Your task to perform on an android device: turn off location Image 0: 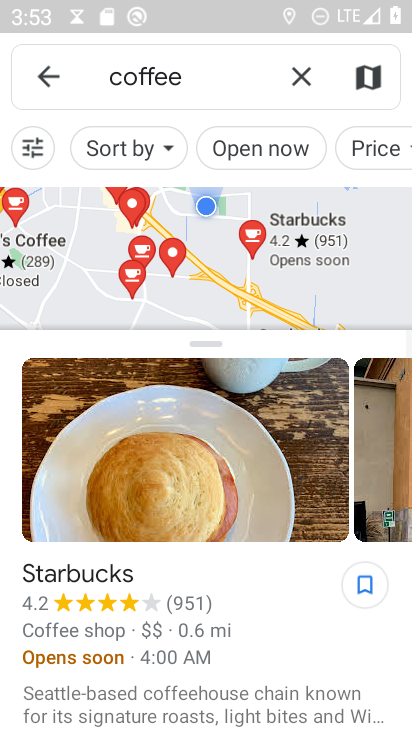
Step 0: press home button
Your task to perform on an android device: turn off location Image 1: 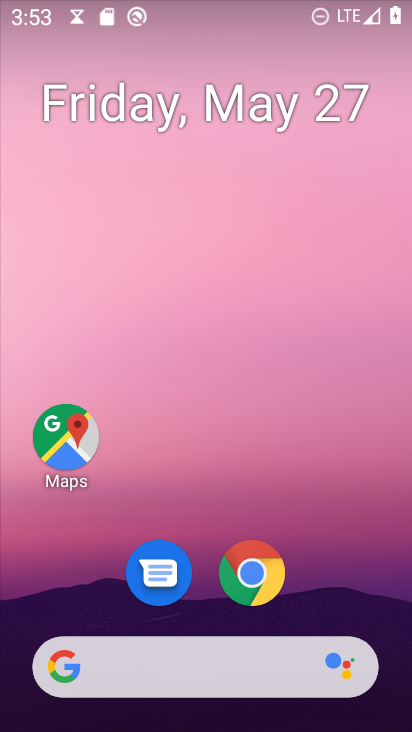
Step 1: drag from (321, 603) to (302, 26)
Your task to perform on an android device: turn off location Image 2: 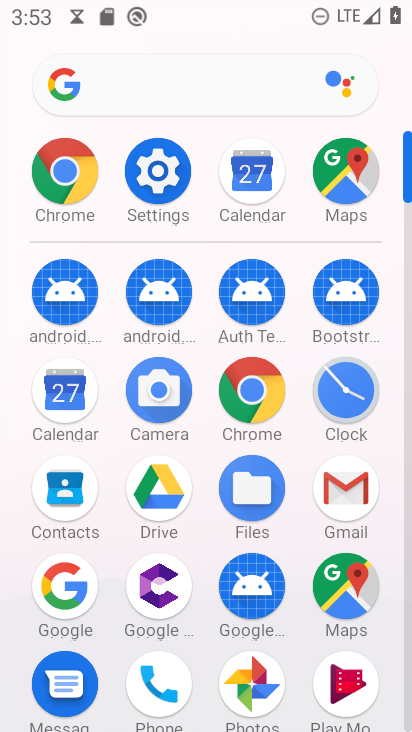
Step 2: click (158, 173)
Your task to perform on an android device: turn off location Image 3: 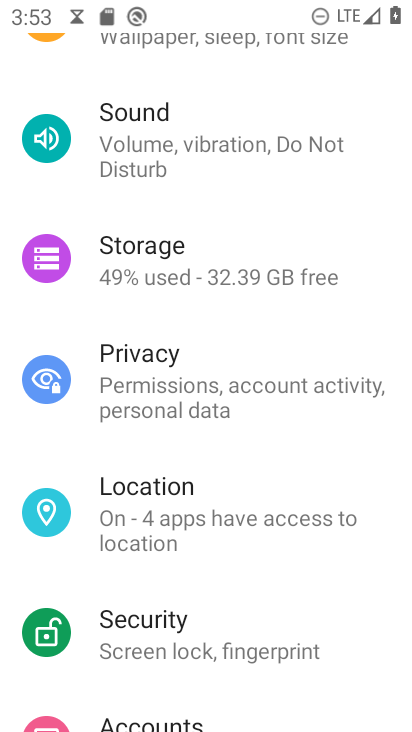
Step 3: click (168, 533)
Your task to perform on an android device: turn off location Image 4: 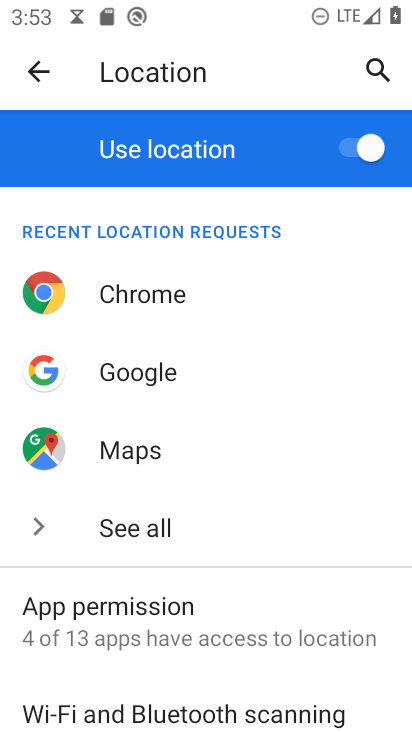
Step 4: drag from (216, 456) to (257, 325)
Your task to perform on an android device: turn off location Image 5: 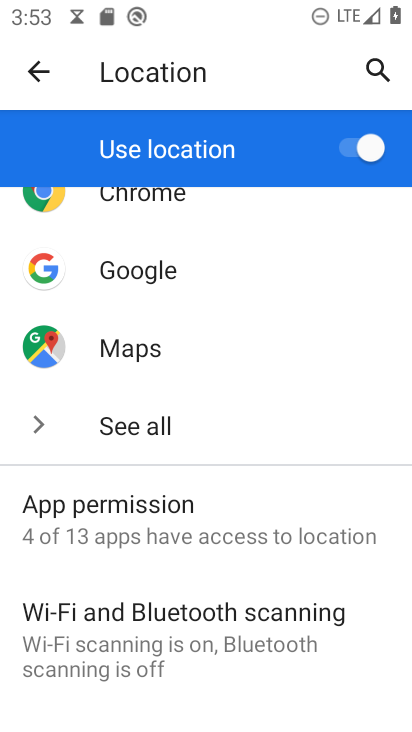
Step 5: click (346, 152)
Your task to perform on an android device: turn off location Image 6: 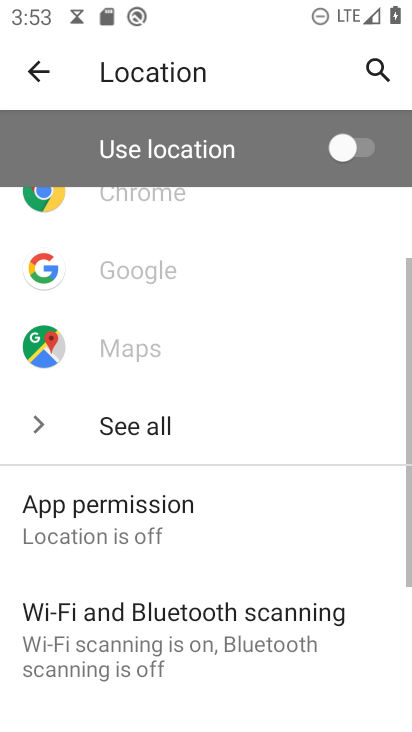
Step 6: task complete